Your task to perform on an android device: Search for sushi restaurants on Maps Image 0: 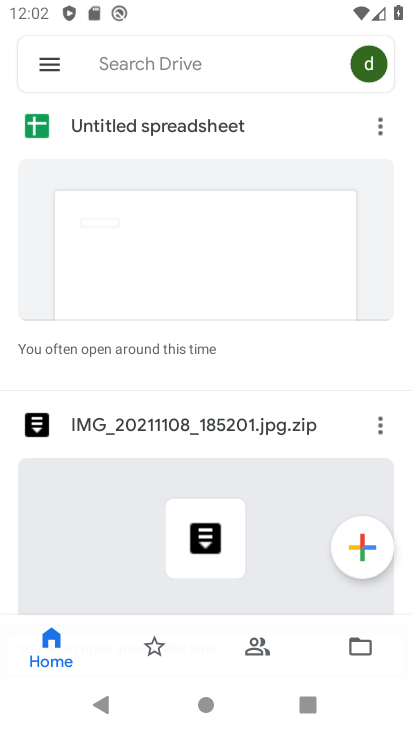
Step 0: press home button
Your task to perform on an android device: Search for sushi restaurants on Maps Image 1: 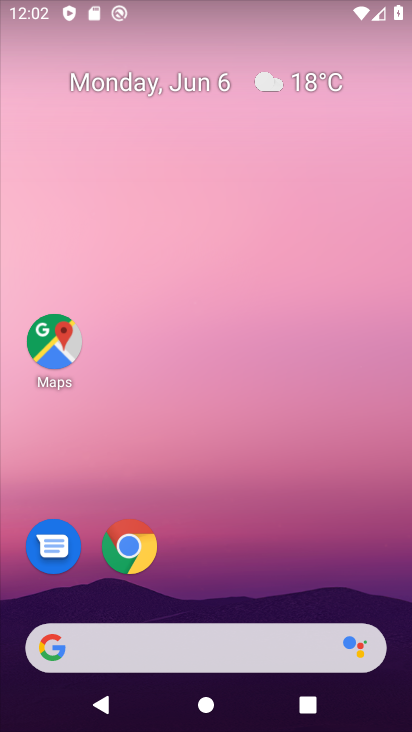
Step 1: click (55, 338)
Your task to perform on an android device: Search for sushi restaurants on Maps Image 2: 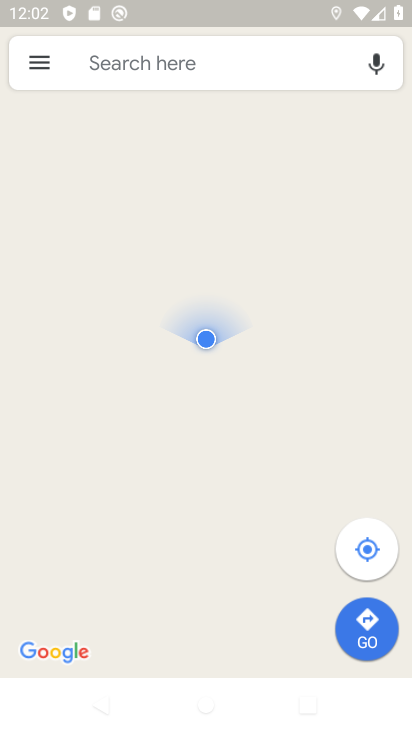
Step 2: click (267, 73)
Your task to perform on an android device: Search for sushi restaurants on Maps Image 3: 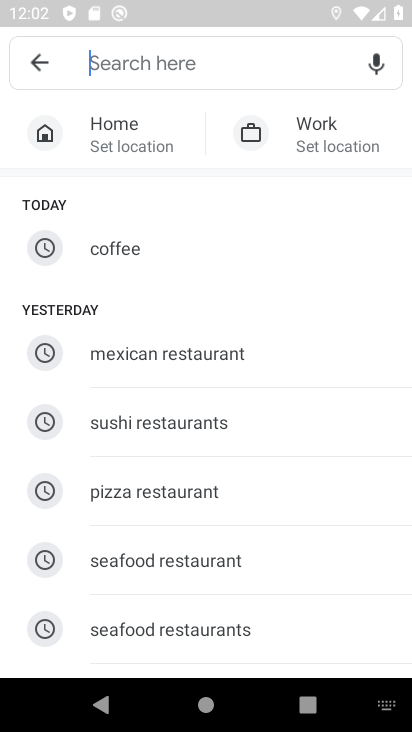
Step 3: click (169, 425)
Your task to perform on an android device: Search for sushi restaurants on Maps Image 4: 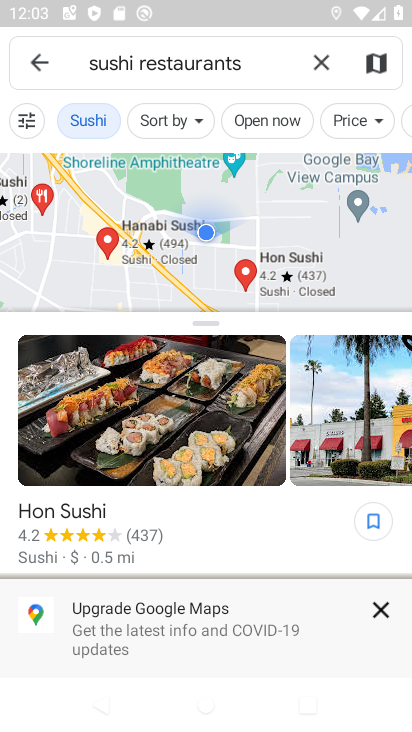
Step 4: task complete